Your task to perform on an android device: Open Amazon Image 0: 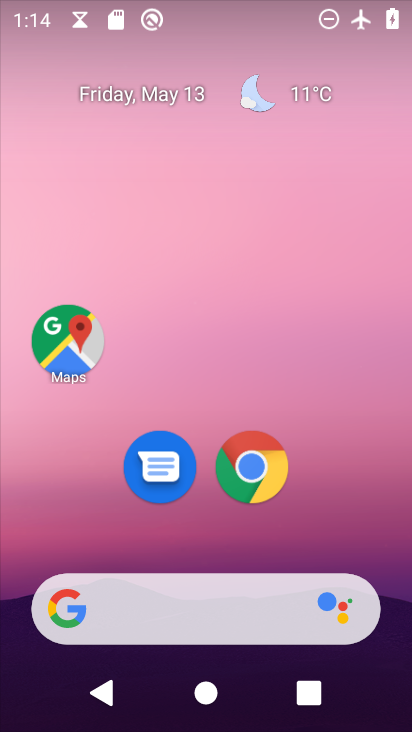
Step 0: click (252, 472)
Your task to perform on an android device: Open Amazon Image 1: 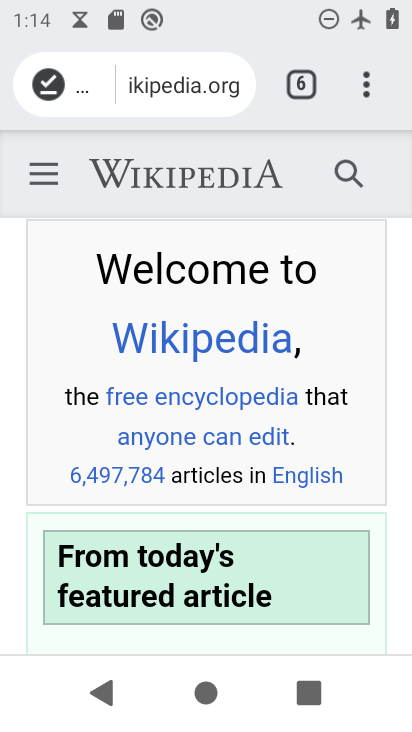
Step 1: click (314, 93)
Your task to perform on an android device: Open Amazon Image 2: 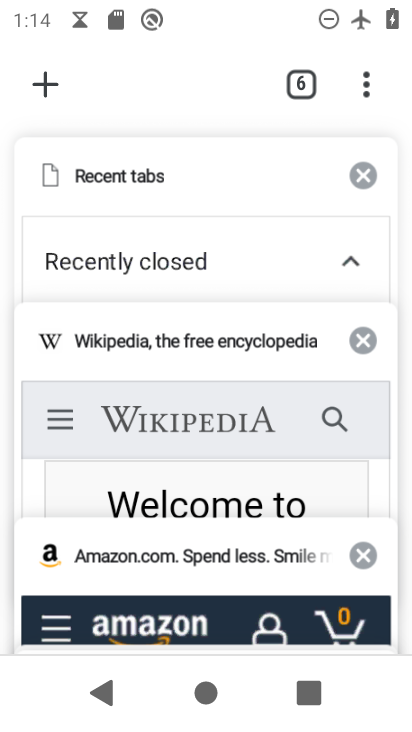
Step 2: click (33, 88)
Your task to perform on an android device: Open Amazon Image 3: 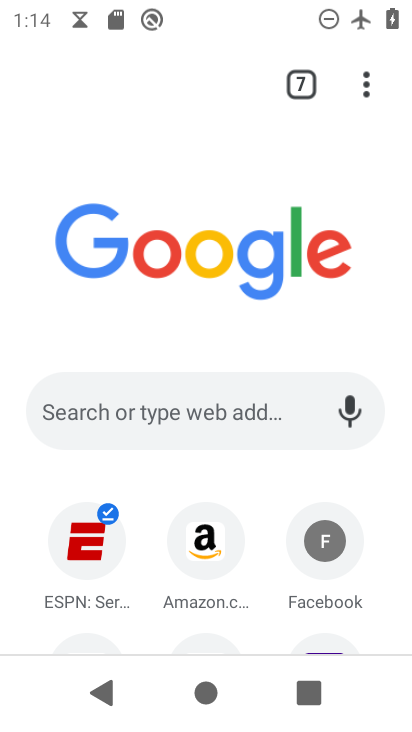
Step 3: click (219, 540)
Your task to perform on an android device: Open Amazon Image 4: 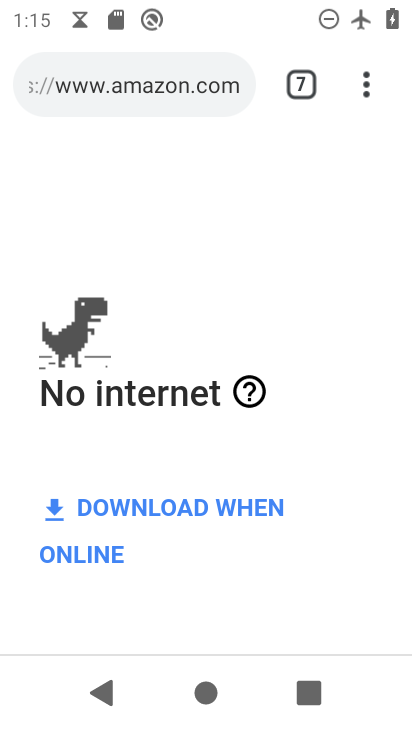
Step 4: task complete